Your task to perform on an android device: open app "Mercado Libre" (install if not already installed), go to login, and select forgot password Image 0: 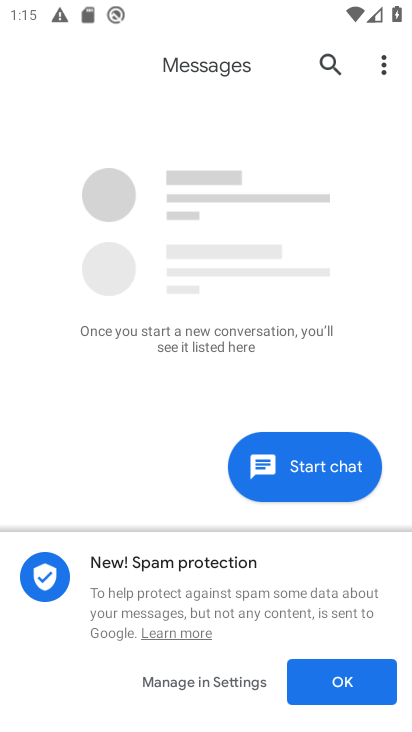
Step 0: press home button
Your task to perform on an android device: open app "Mercado Libre" (install if not already installed), go to login, and select forgot password Image 1: 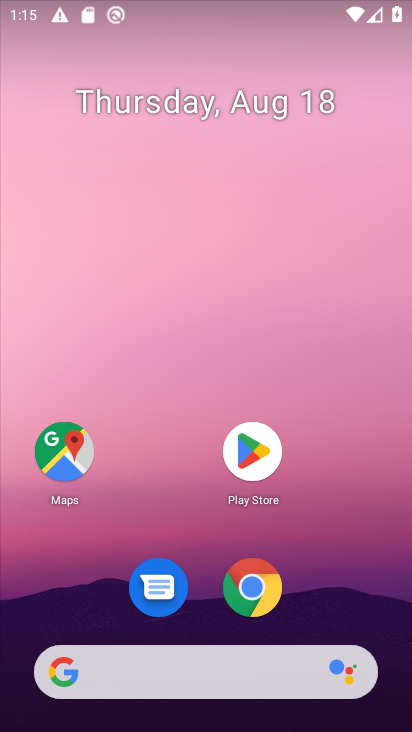
Step 1: click (251, 459)
Your task to perform on an android device: open app "Mercado Libre" (install if not already installed), go to login, and select forgot password Image 2: 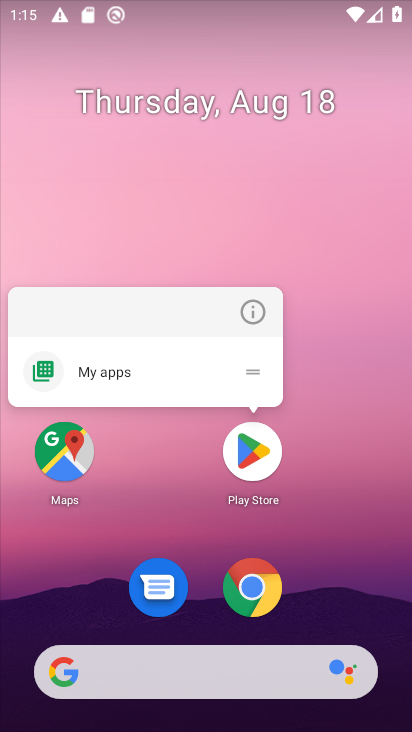
Step 2: click (257, 452)
Your task to perform on an android device: open app "Mercado Libre" (install if not already installed), go to login, and select forgot password Image 3: 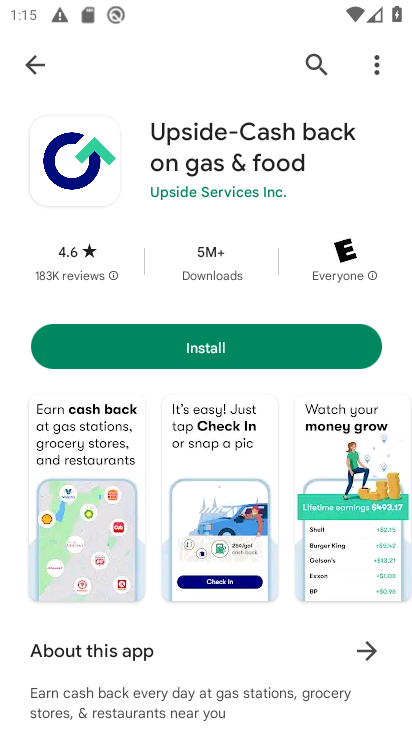
Step 3: click (309, 56)
Your task to perform on an android device: open app "Mercado Libre" (install if not already installed), go to login, and select forgot password Image 4: 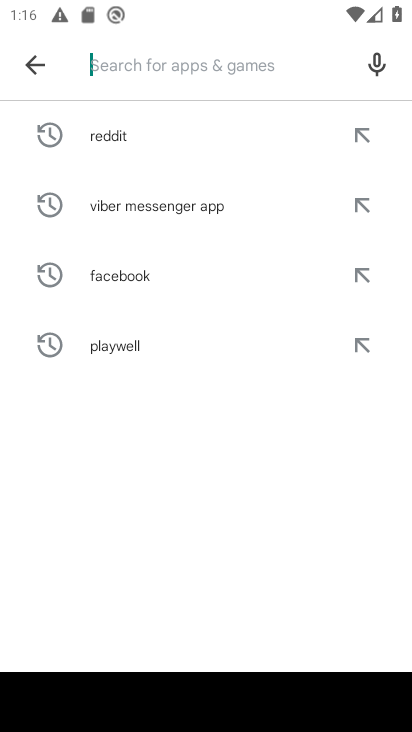
Step 4: type "Mercado Libre"
Your task to perform on an android device: open app "Mercado Libre" (install if not already installed), go to login, and select forgot password Image 5: 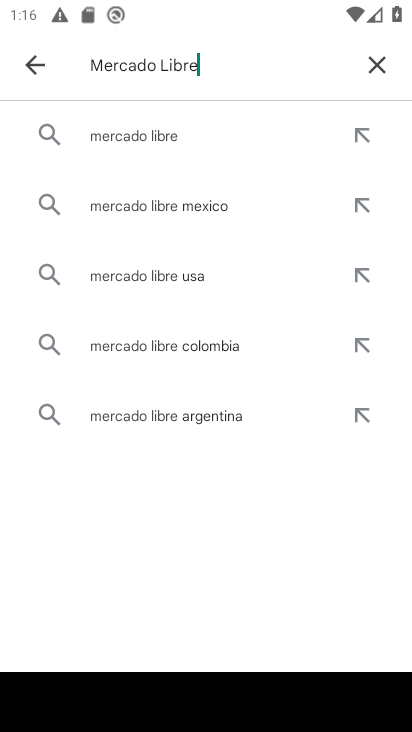
Step 5: click (127, 140)
Your task to perform on an android device: open app "Mercado Libre" (install if not already installed), go to login, and select forgot password Image 6: 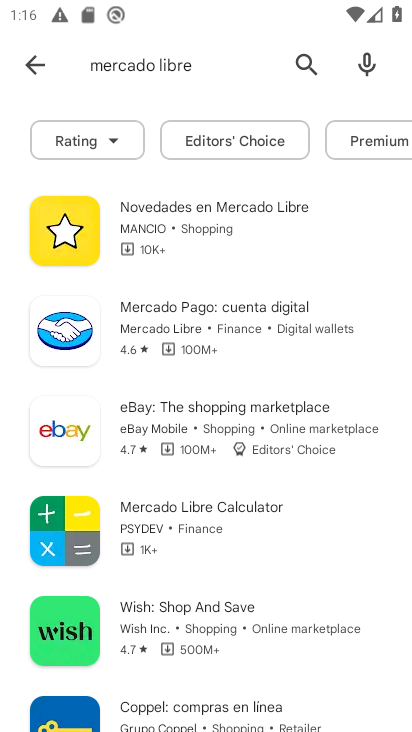
Step 6: task complete